Your task to perform on an android device: Go to eBay Image 0: 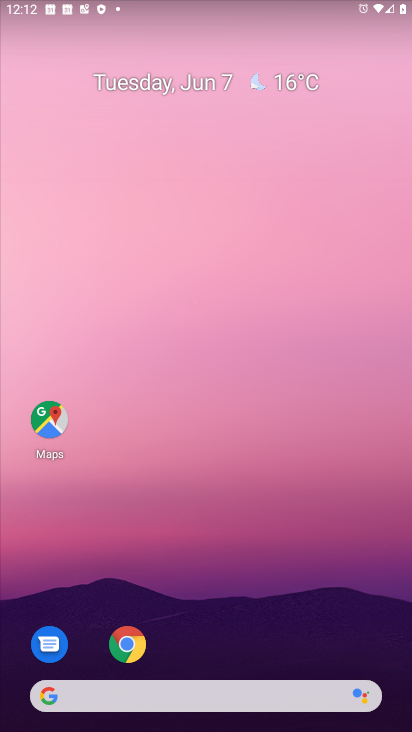
Step 0: drag from (191, 633) to (162, 120)
Your task to perform on an android device: Go to eBay Image 1: 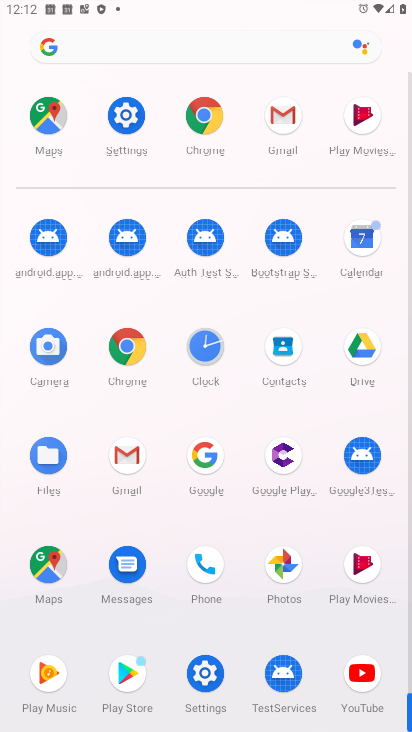
Step 1: drag from (173, 202) to (161, 44)
Your task to perform on an android device: Go to eBay Image 2: 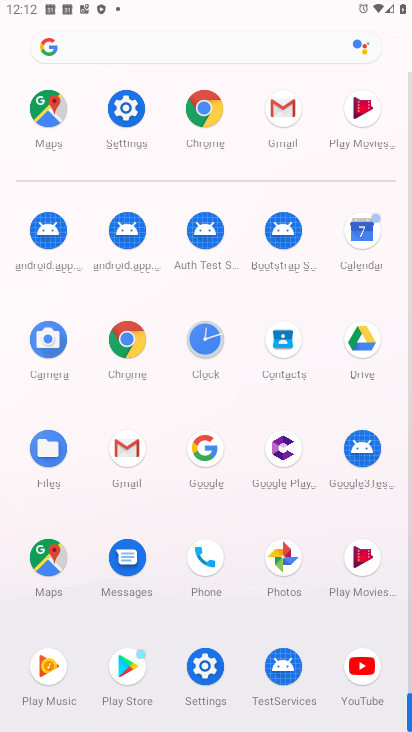
Step 2: drag from (182, 186) to (170, 35)
Your task to perform on an android device: Go to eBay Image 3: 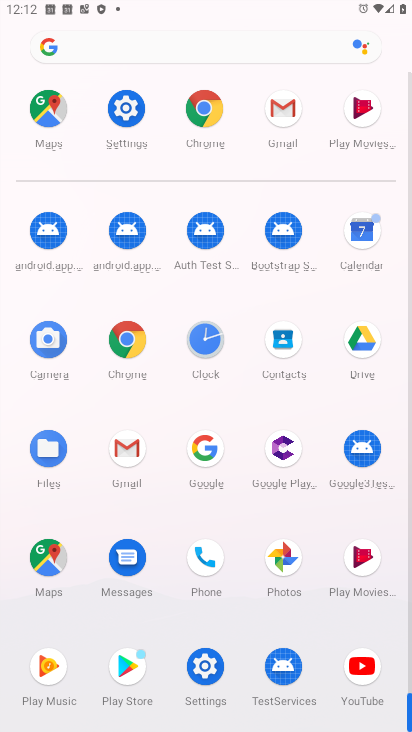
Step 3: click (125, 345)
Your task to perform on an android device: Go to eBay Image 4: 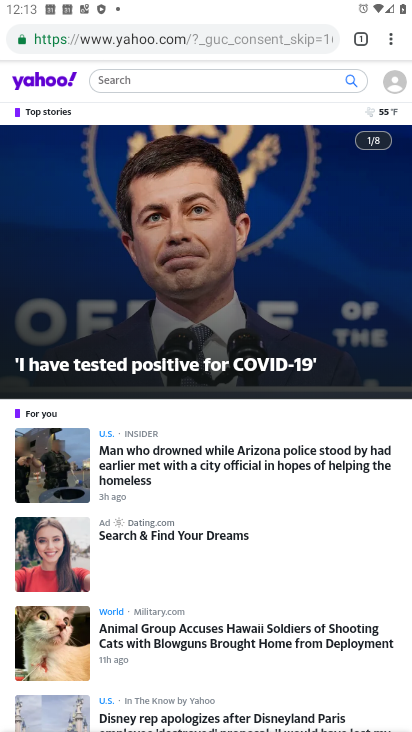
Step 4: click (366, 45)
Your task to perform on an android device: Go to eBay Image 5: 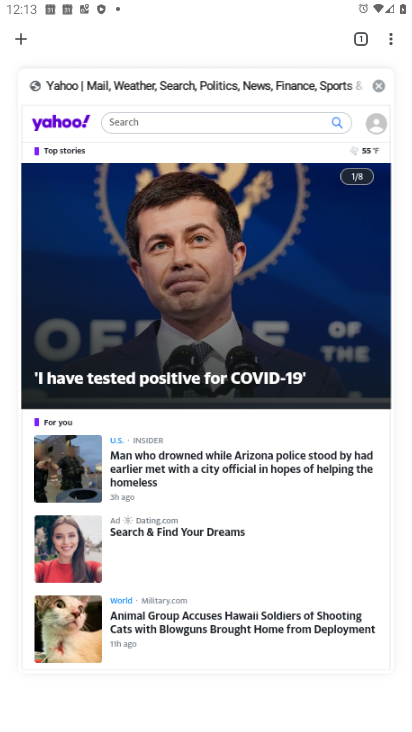
Step 5: click (23, 51)
Your task to perform on an android device: Go to eBay Image 6: 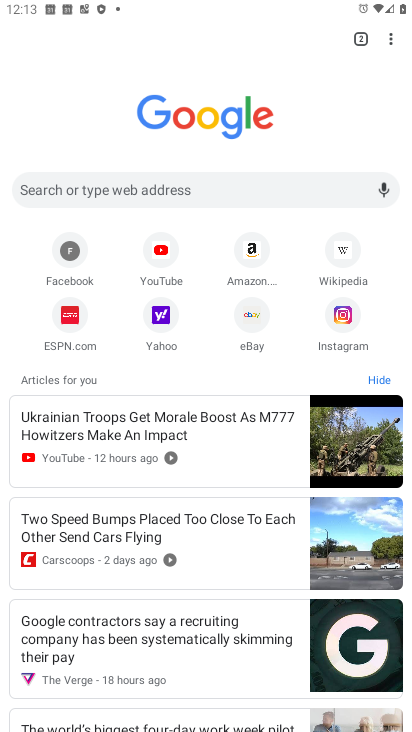
Step 6: click (258, 322)
Your task to perform on an android device: Go to eBay Image 7: 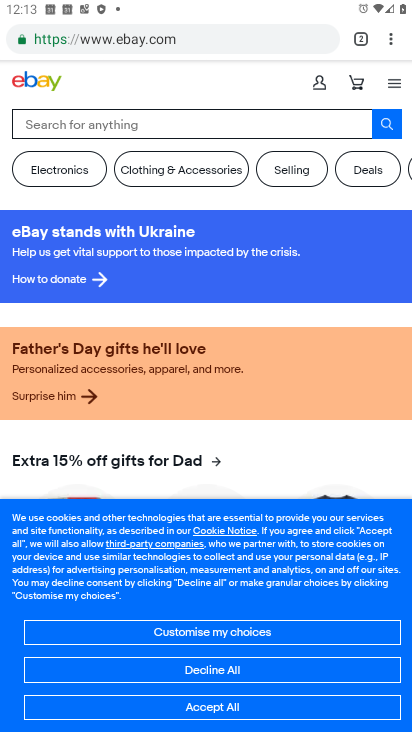
Step 7: task complete